Your task to perform on an android device: Do I have any events today? Image 0: 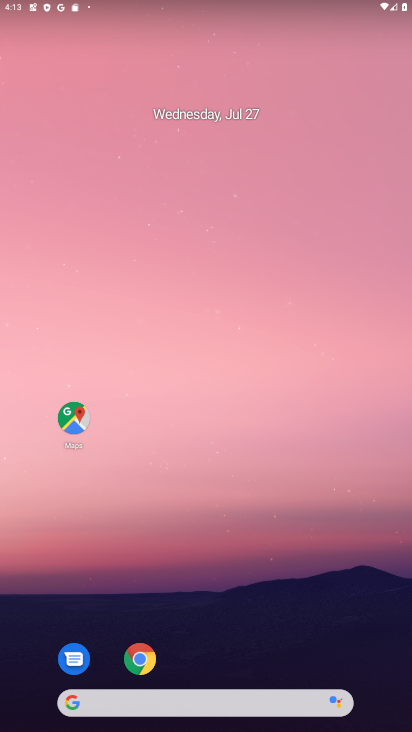
Step 0: drag from (287, 647) to (271, 79)
Your task to perform on an android device: Do I have any events today? Image 1: 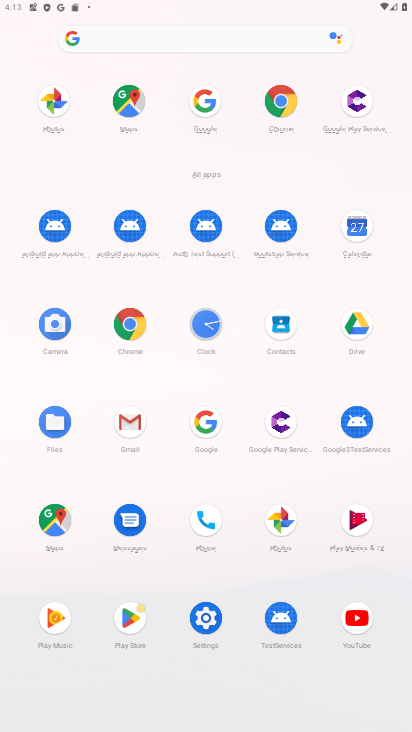
Step 1: click (363, 238)
Your task to perform on an android device: Do I have any events today? Image 2: 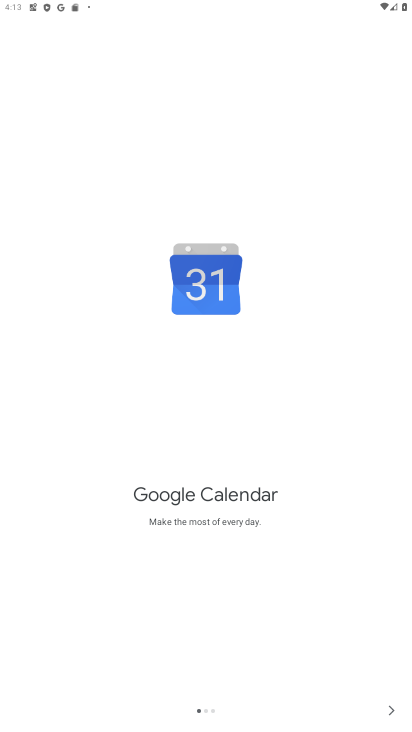
Step 2: click (386, 707)
Your task to perform on an android device: Do I have any events today? Image 3: 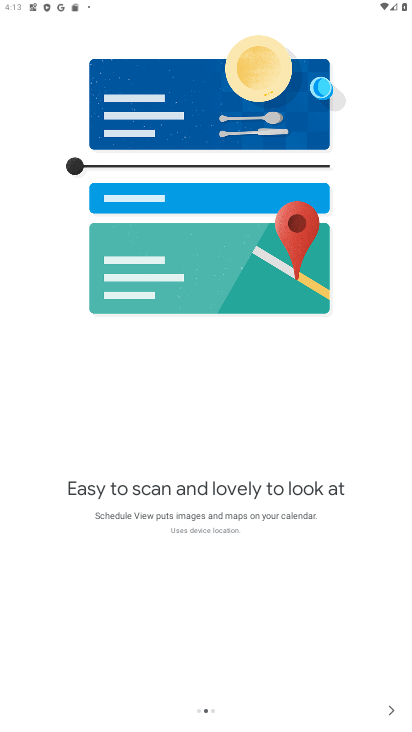
Step 3: click (386, 707)
Your task to perform on an android device: Do I have any events today? Image 4: 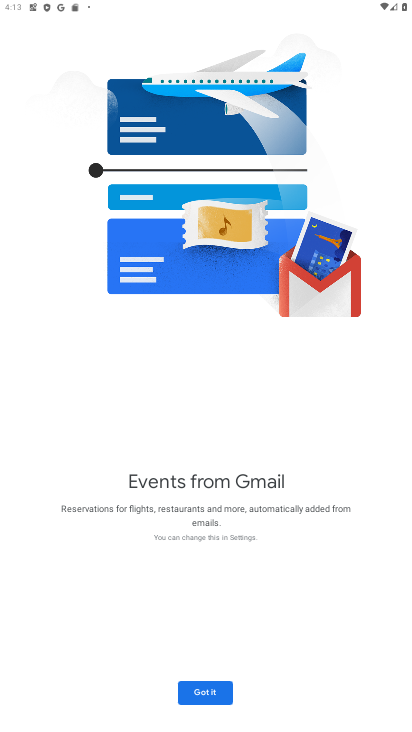
Step 4: click (203, 697)
Your task to perform on an android device: Do I have any events today? Image 5: 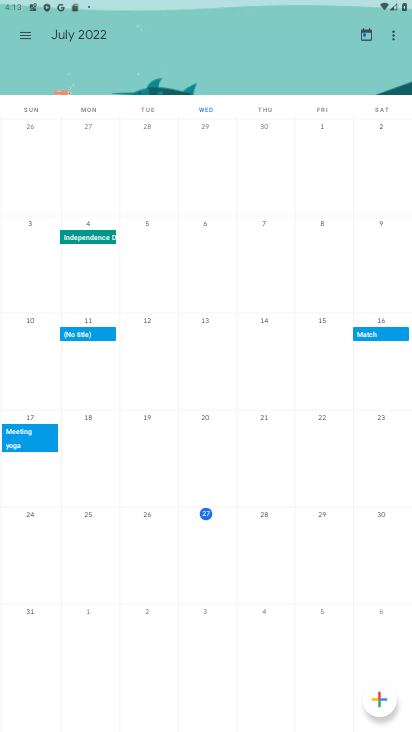
Step 5: click (19, 44)
Your task to perform on an android device: Do I have any events today? Image 6: 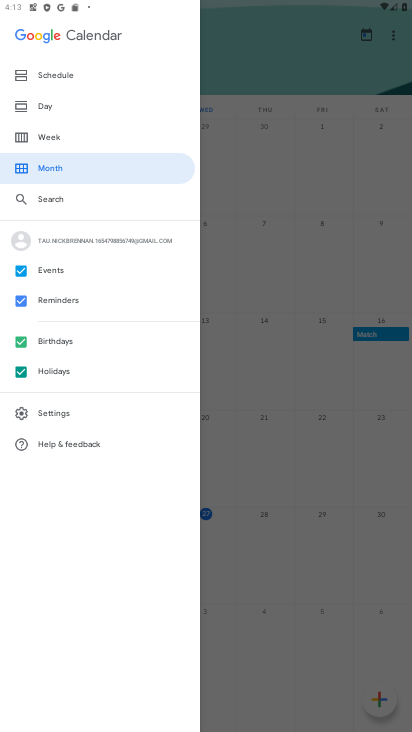
Step 6: click (22, 375)
Your task to perform on an android device: Do I have any events today? Image 7: 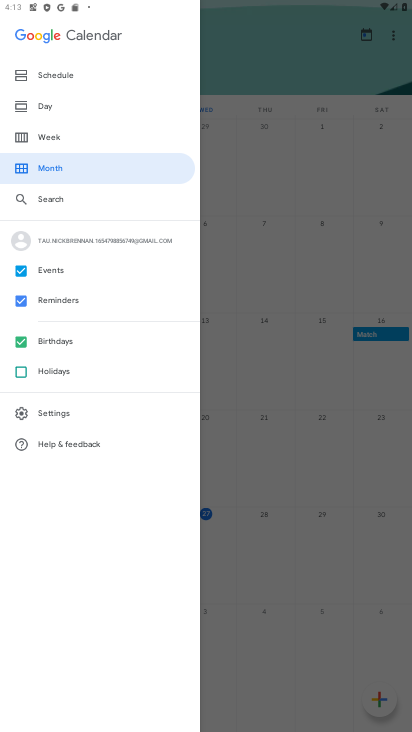
Step 7: click (21, 343)
Your task to perform on an android device: Do I have any events today? Image 8: 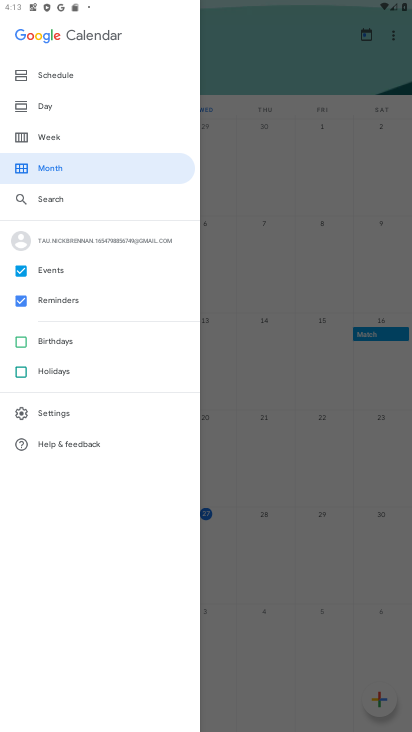
Step 8: click (19, 303)
Your task to perform on an android device: Do I have any events today? Image 9: 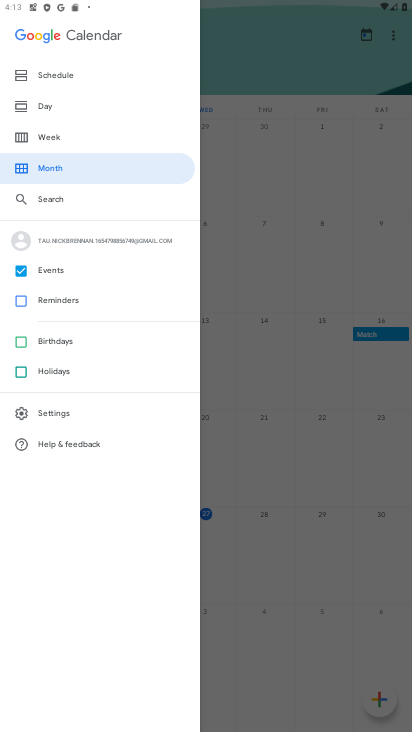
Step 9: click (93, 106)
Your task to perform on an android device: Do I have any events today? Image 10: 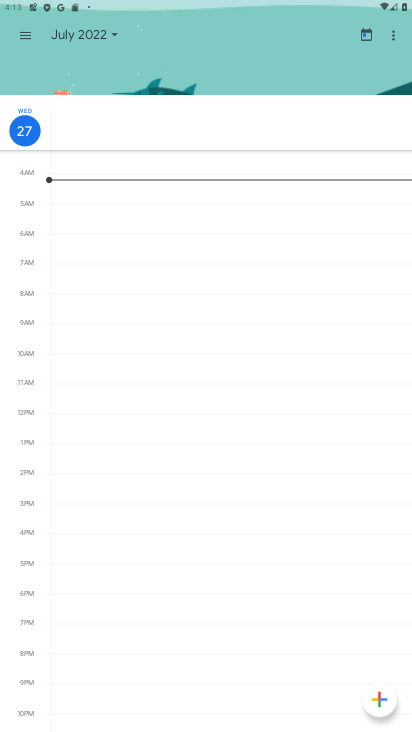
Step 10: task complete